Your task to perform on an android device: turn pop-ups off in chrome Image 0: 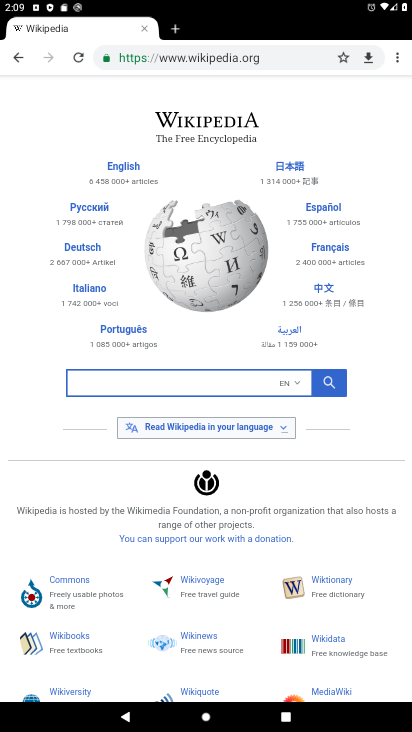
Step 0: press home button
Your task to perform on an android device: turn pop-ups off in chrome Image 1: 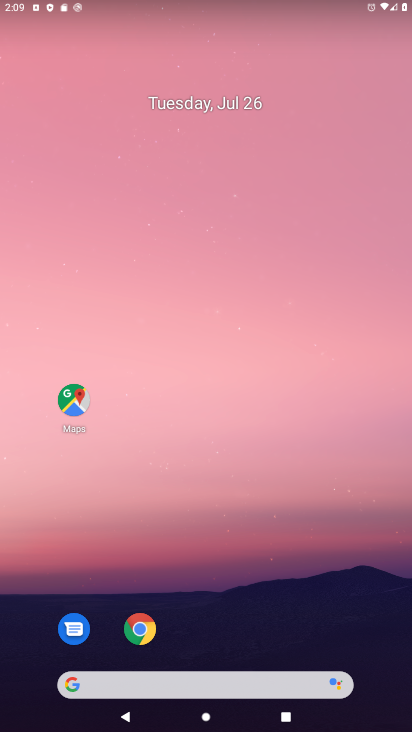
Step 1: click (143, 631)
Your task to perform on an android device: turn pop-ups off in chrome Image 2: 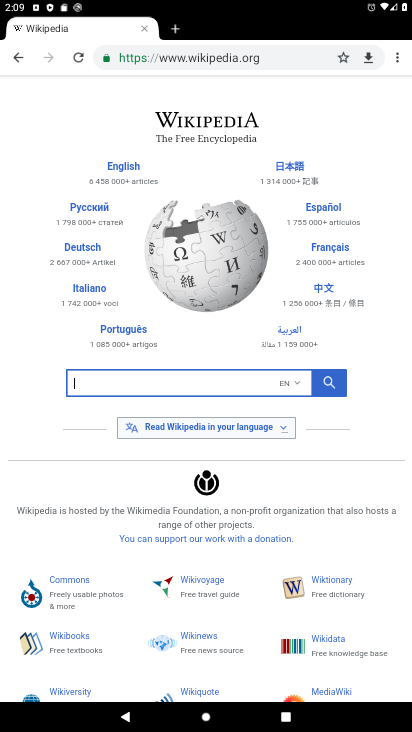
Step 2: click (399, 64)
Your task to perform on an android device: turn pop-ups off in chrome Image 3: 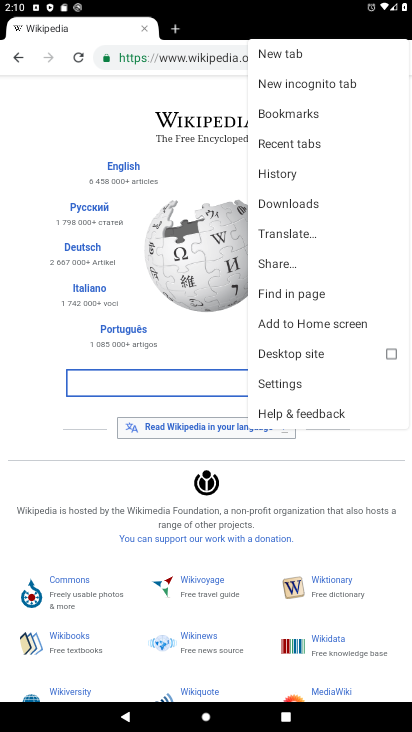
Step 3: click (283, 378)
Your task to perform on an android device: turn pop-ups off in chrome Image 4: 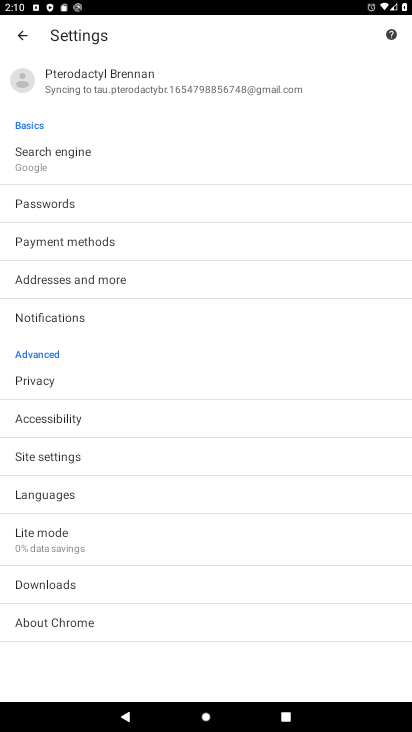
Step 4: click (44, 464)
Your task to perform on an android device: turn pop-ups off in chrome Image 5: 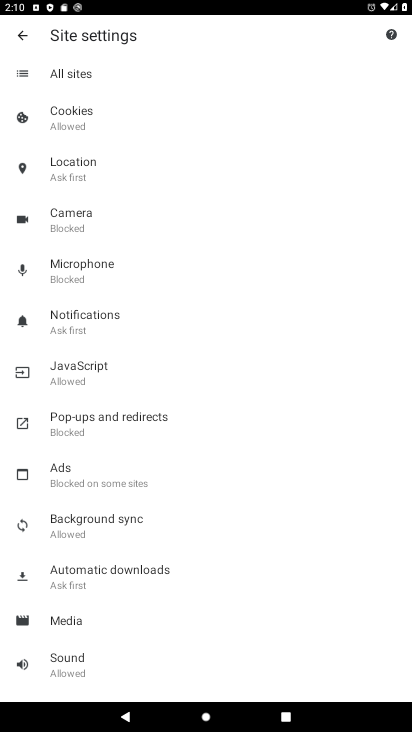
Step 5: click (80, 418)
Your task to perform on an android device: turn pop-ups off in chrome Image 6: 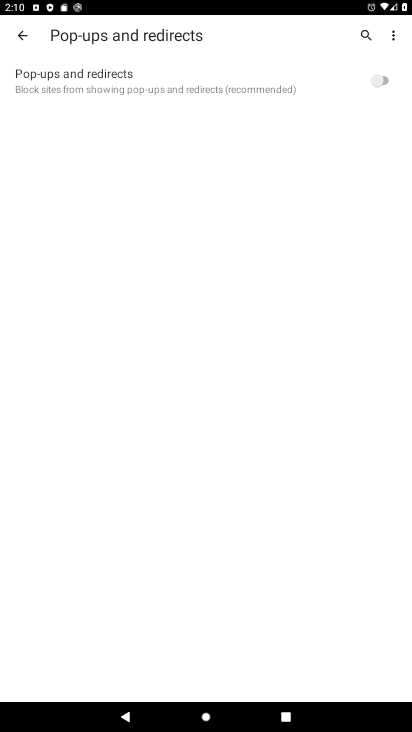
Step 6: task complete